Your task to perform on an android device: Do I have any events this weekend? Image 0: 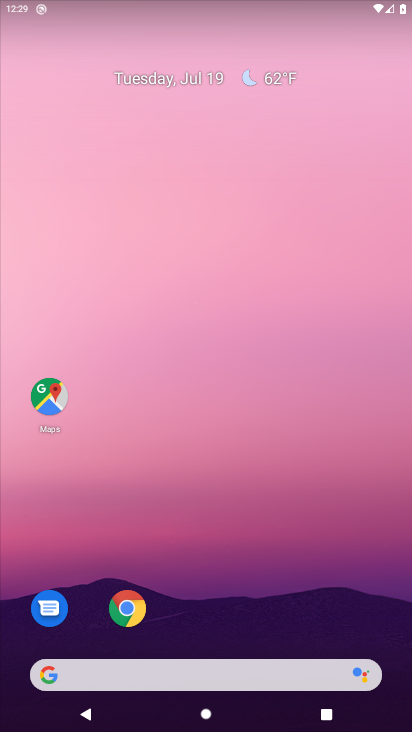
Step 0: press home button
Your task to perform on an android device: Do I have any events this weekend? Image 1: 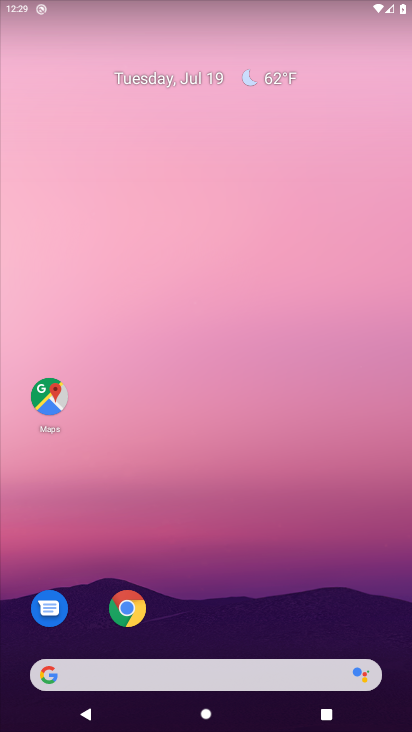
Step 1: drag from (249, 641) to (270, 76)
Your task to perform on an android device: Do I have any events this weekend? Image 2: 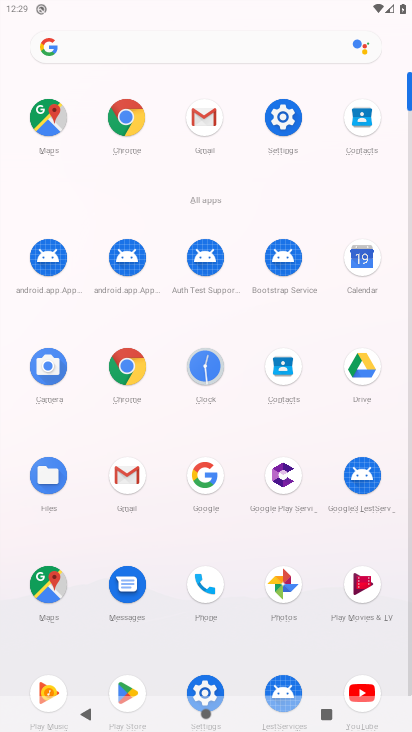
Step 2: click (360, 258)
Your task to perform on an android device: Do I have any events this weekend? Image 3: 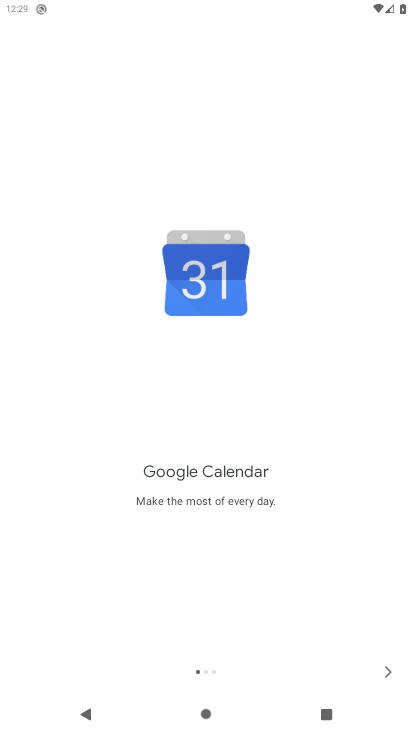
Step 3: click (389, 669)
Your task to perform on an android device: Do I have any events this weekend? Image 4: 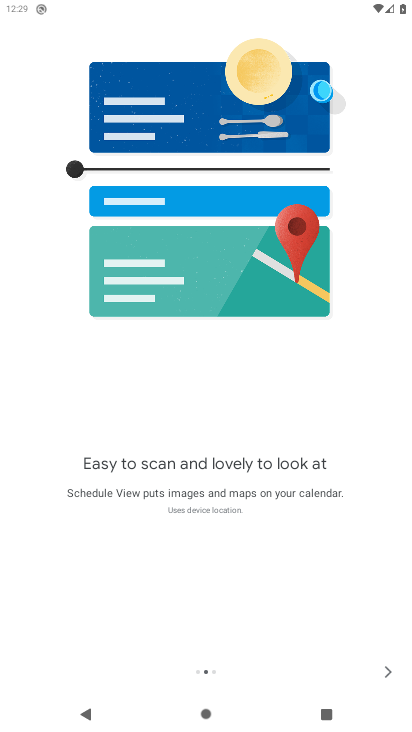
Step 4: click (389, 669)
Your task to perform on an android device: Do I have any events this weekend? Image 5: 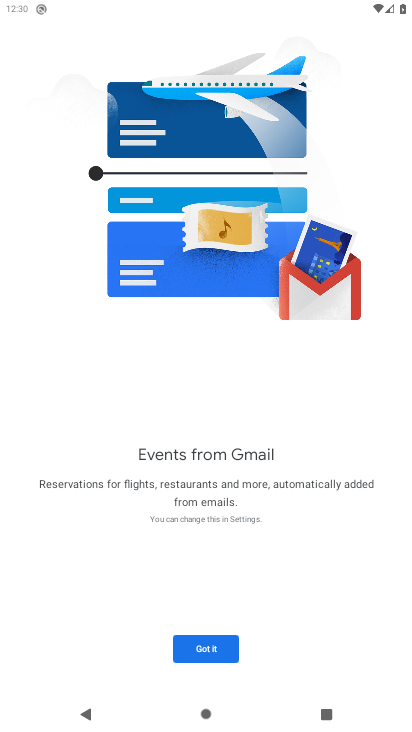
Step 5: click (203, 644)
Your task to perform on an android device: Do I have any events this weekend? Image 6: 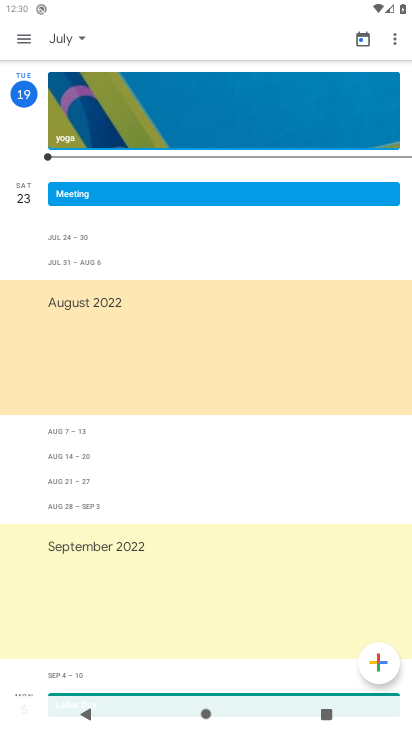
Step 6: click (14, 39)
Your task to perform on an android device: Do I have any events this weekend? Image 7: 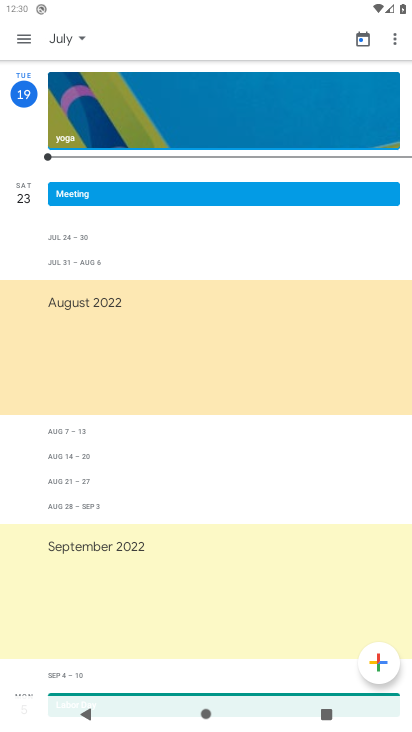
Step 7: click (28, 36)
Your task to perform on an android device: Do I have any events this weekend? Image 8: 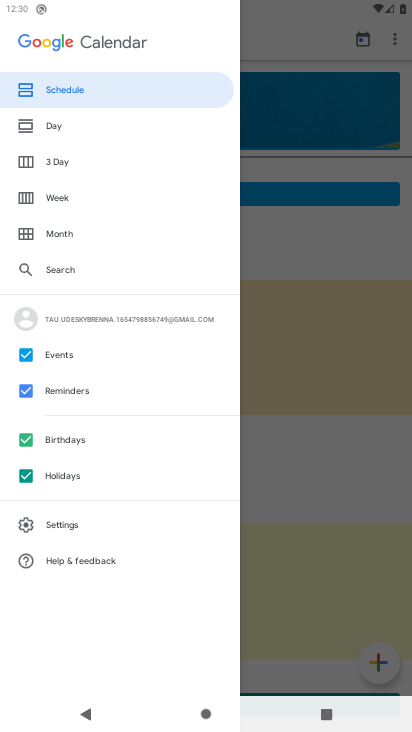
Step 8: click (74, 196)
Your task to perform on an android device: Do I have any events this weekend? Image 9: 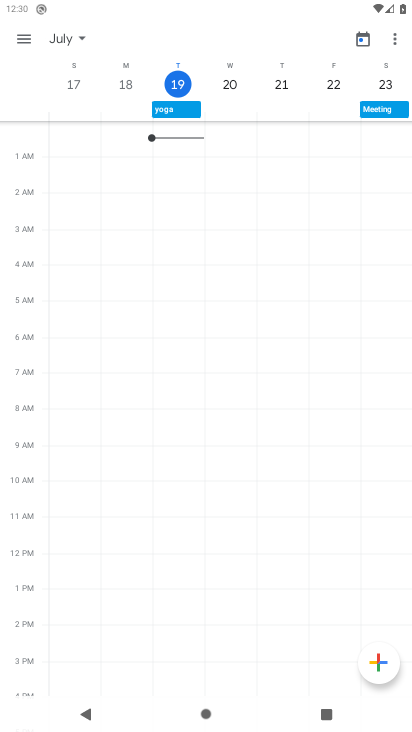
Step 9: task complete